Your task to perform on an android device: turn off picture-in-picture Image 0: 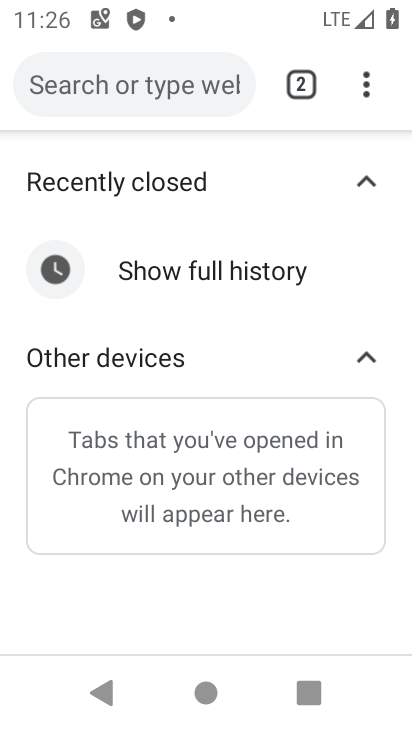
Step 0: press home button
Your task to perform on an android device: turn off picture-in-picture Image 1: 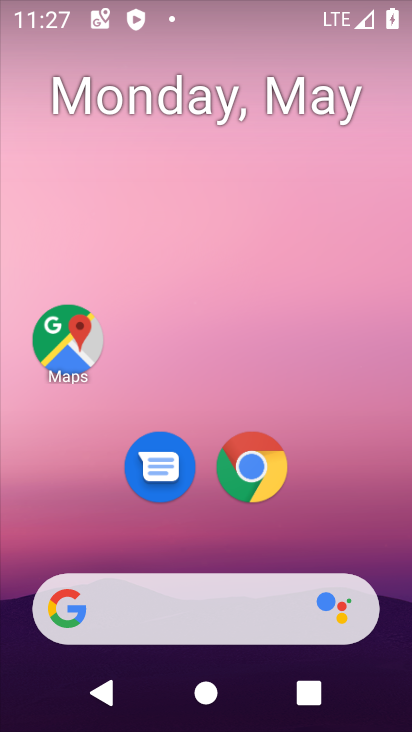
Step 1: drag from (399, 710) to (337, 135)
Your task to perform on an android device: turn off picture-in-picture Image 2: 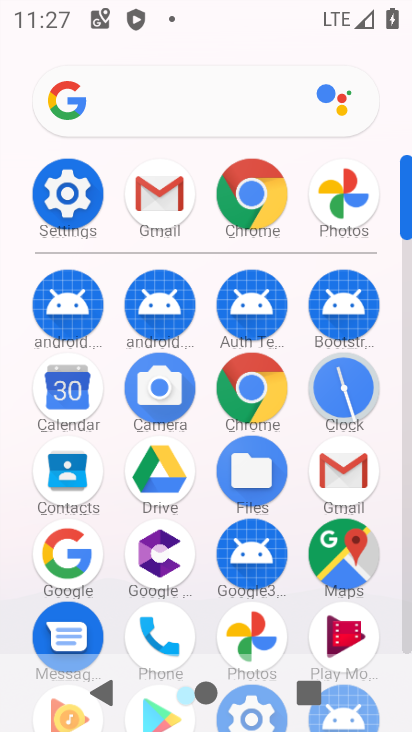
Step 2: click (238, 389)
Your task to perform on an android device: turn off picture-in-picture Image 3: 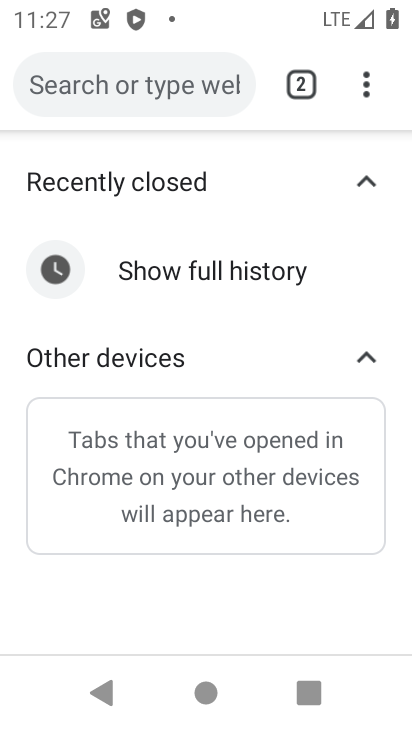
Step 3: click (226, 92)
Your task to perform on an android device: turn off picture-in-picture Image 4: 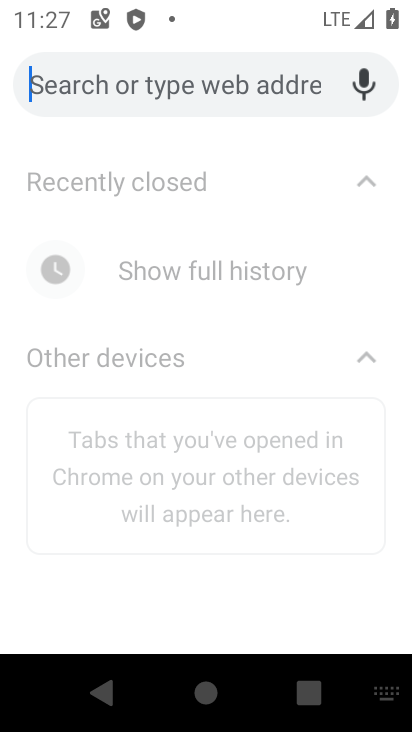
Step 4: press back button
Your task to perform on an android device: turn off picture-in-picture Image 5: 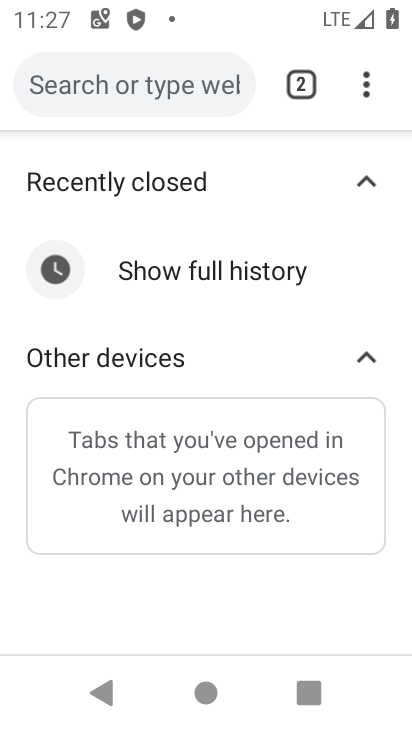
Step 5: press home button
Your task to perform on an android device: turn off picture-in-picture Image 6: 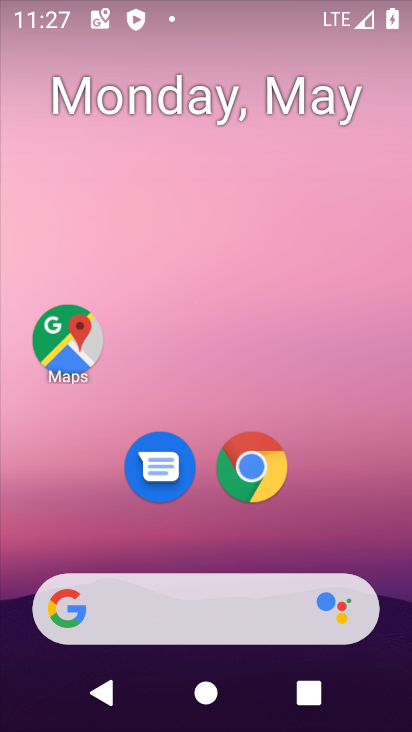
Step 6: click (253, 472)
Your task to perform on an android device: turn off picture-in-picture Image 7: 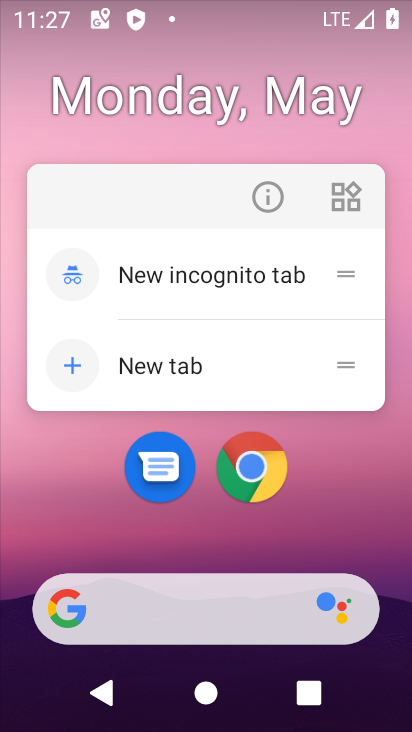
Step 7: click (266, 204)
Your task to perform on an android device: turn off picture-in-picture Image 8: 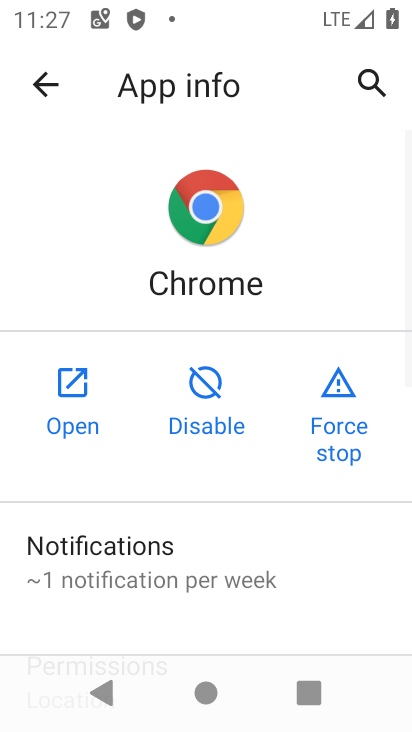
Step 8: drag from (200, 619) to (188, 192)
Your task to perform on an android device: turn off picture-in-picture Image 9: 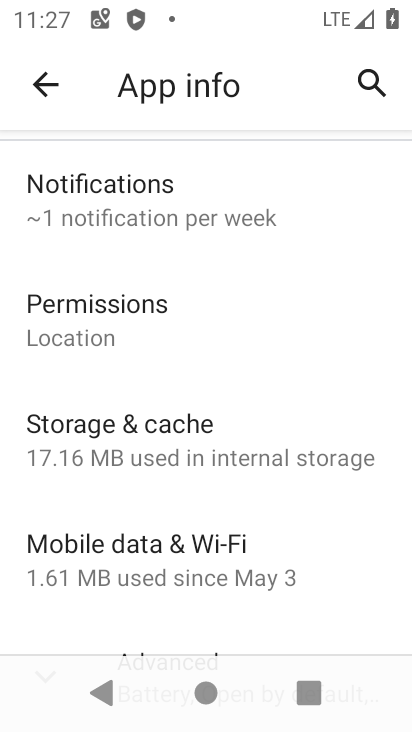
Step 9: drag from (268, 610) to (265, 155)
Your task to perform on an android device: turn off picture-in-picture Image 10: 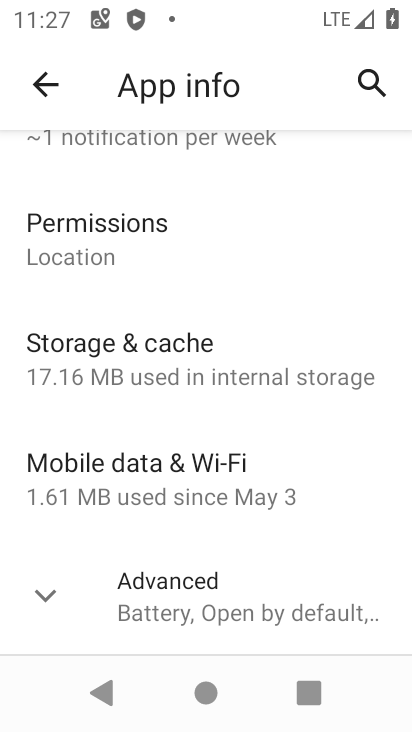
Step 10: click (41, 593)
Your task to perform on an android device: turn off picture-in-picture Image 11: 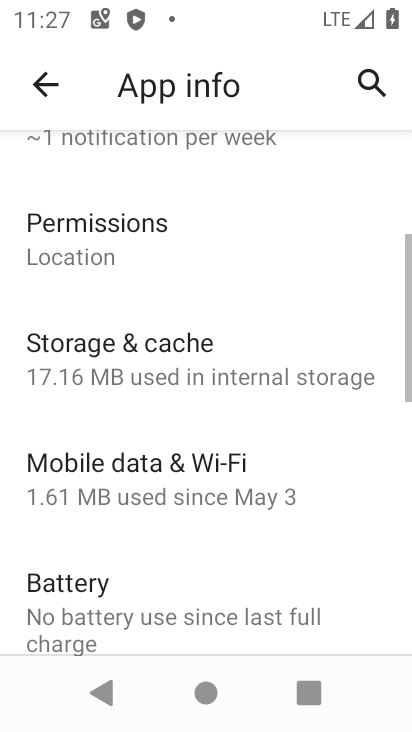
Step 11: drag from (367, 628) to (335, 189)
Your task to perform on an android device: turn off picture-in-picture Image 12: 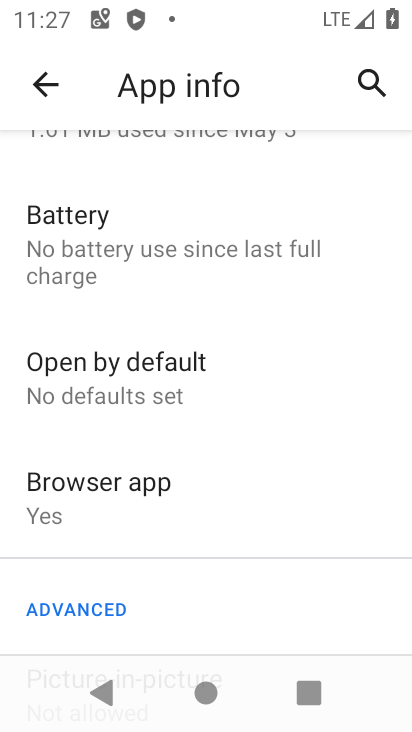
Step 12: drag from (234, 588) to (209, 195)
Your task to perform on an android device: turn off picture-in-picture Image 13: 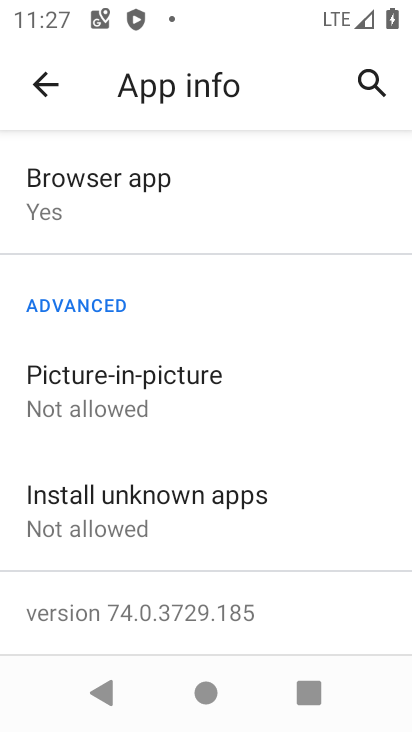
Step 13: click (115, 403)
Your task to perform on an android device: turn off picture-in-picture Image 14: 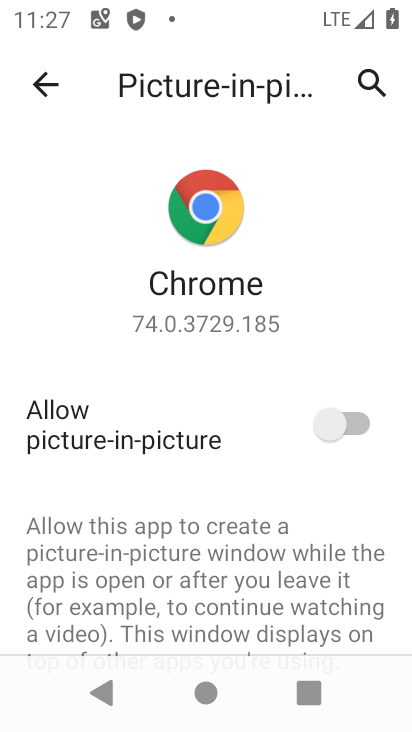
Step 14: task complete